Your task to perform on an android device: What's on my calendar tomorrow? Image 0: 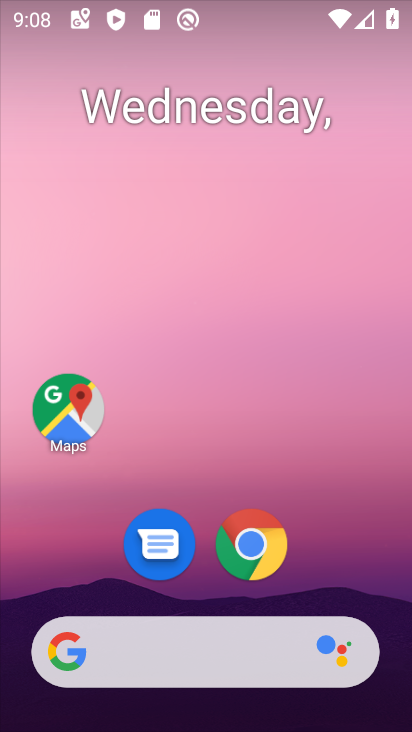
Step 0: click (187, 116)
Your task to perform on an android device: What's on my calendar tomorrow? Image 1: 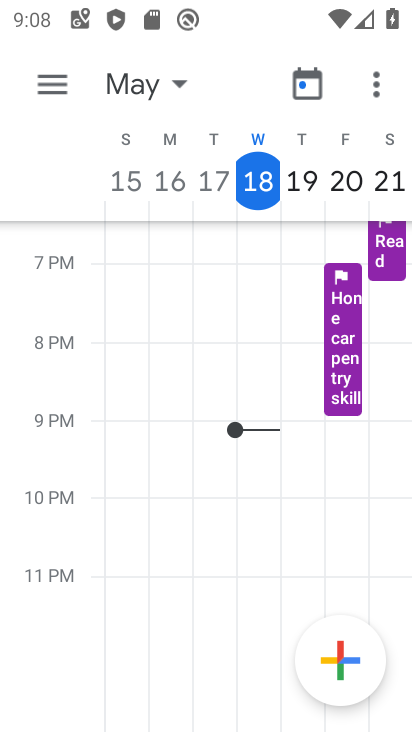
Step 1: click (149, 72)
Your task to perform on an android device: What's on my calendar tomorrow? Image 2: 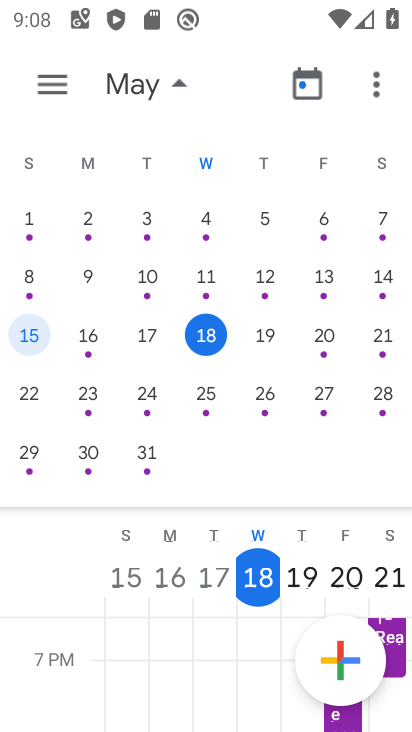
Step 2: click (268, 337)
Your task to perform on an android device: What's on my calendar tomorrow? Image 3: 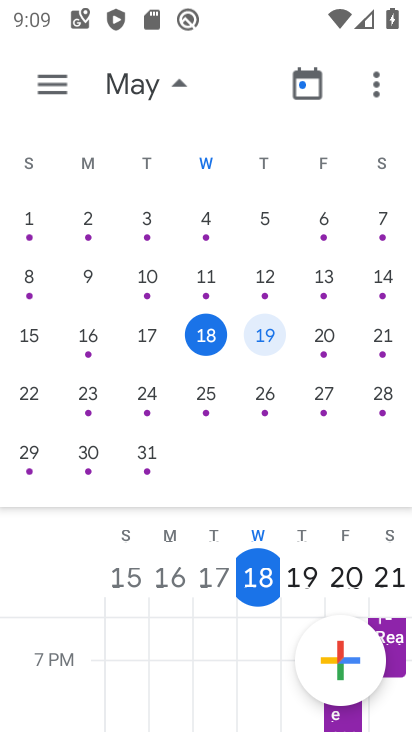
Step 3: drag from (224, 648) to (229, 284)
Your task to perform on an android device: What's on my calendar tomorrow? Image 4: 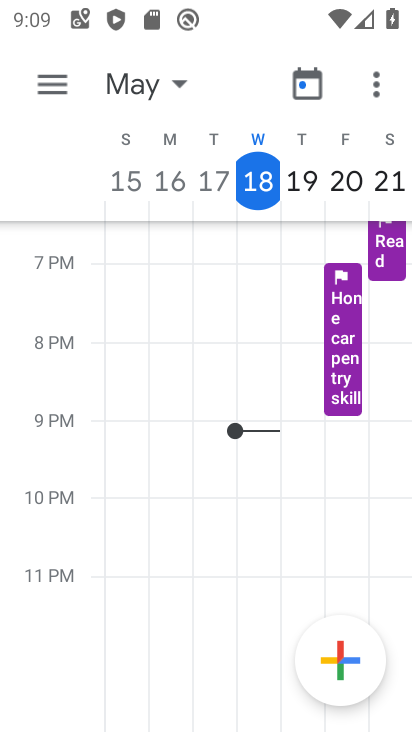
Step 4: click (304, 176)
Your task to perform on an android device: What's on my calendar tomorrow? Image 5: 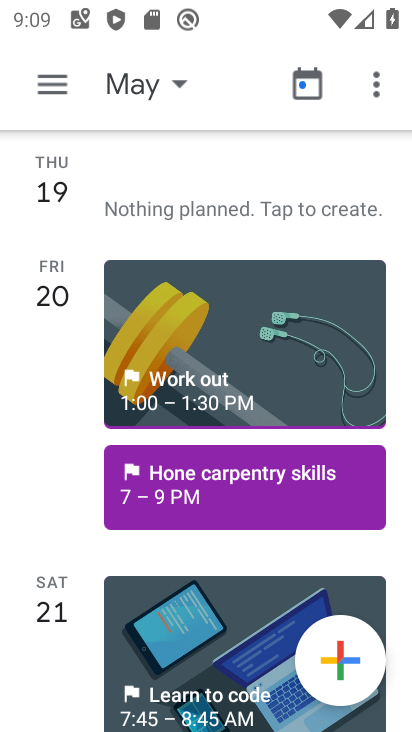
Step 5: task complete